Your task to perform on an android device: Open the calendar and show me this week's events Image 0: 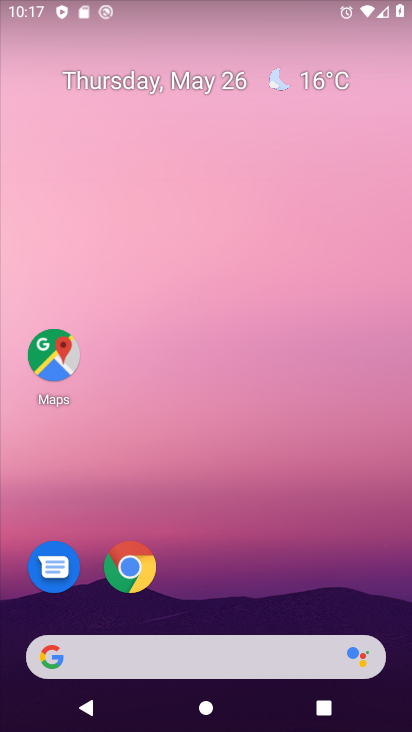
Step 0: click (340, 231)
Your task to perform on an android device: Open the calendar and show me this week's events Image 1: 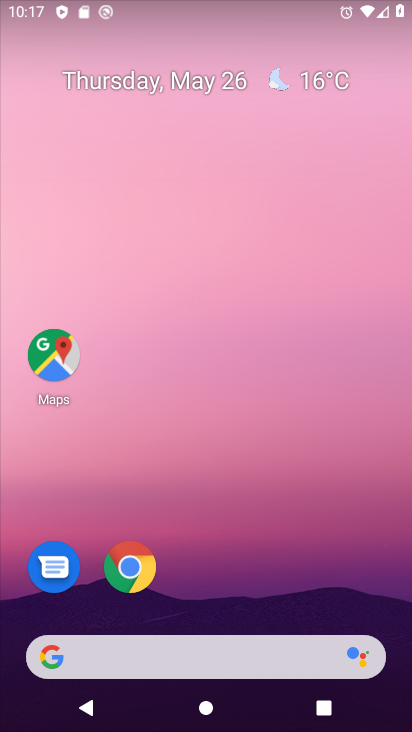
Step 1: drag from (392, 709) to (307, 92)
Your task to perform on an android device: Open the calendar and show me this week's events Image 2: 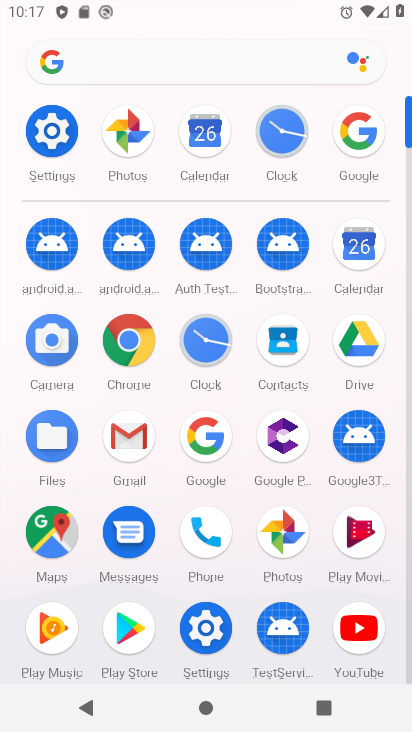
Step 2: click (343, 247)
Your task to perform on an android device: Open the calendar and show me this week's events Image 3: 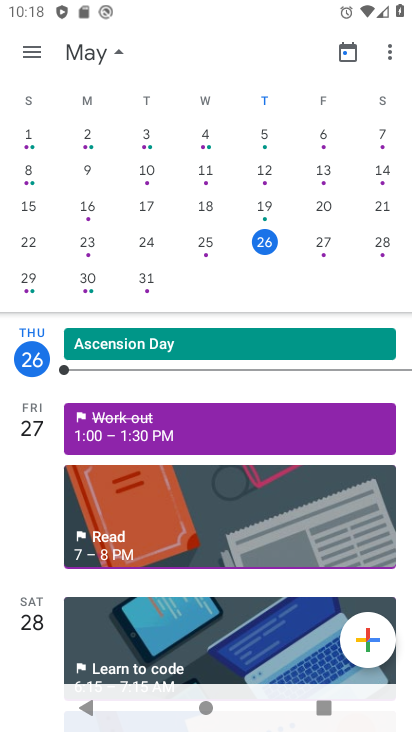
Step 3: click (34, 51)
Your task to perform on an android device: Open the calendar and show me this week's events Image 4: 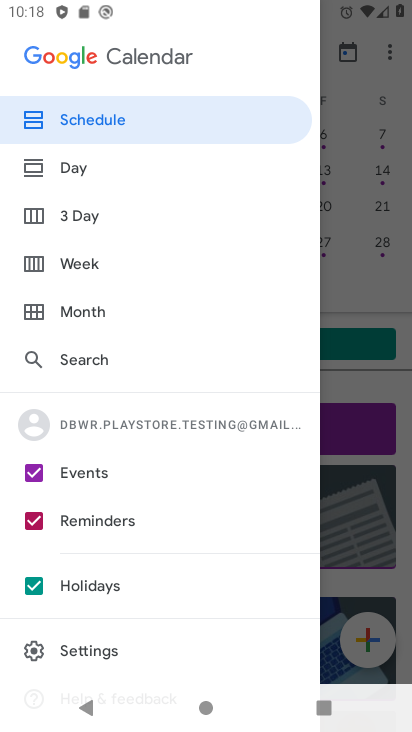
Step 4: press back button
Your task to perform on an android device: Open the calendar and show me this week's events Image 5: 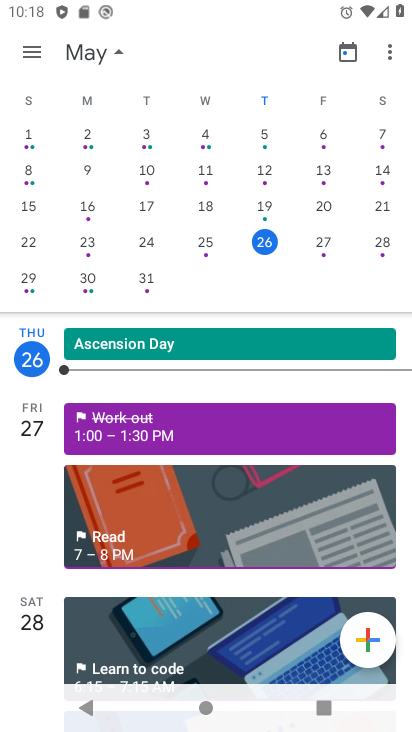
Step 5: click (268, 245)
Your task to perform on an android device: Open the calendar and show me this week's events Image 6: 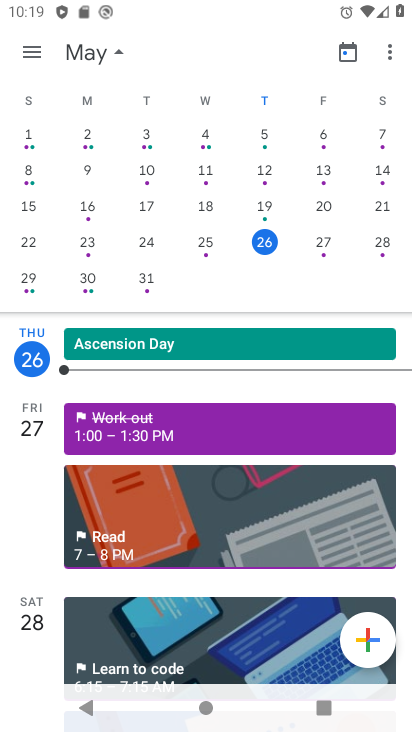
Step 6: click (27, 53)
Your task to perform on an android device: Open the calendar and show me this week's events Image 7: 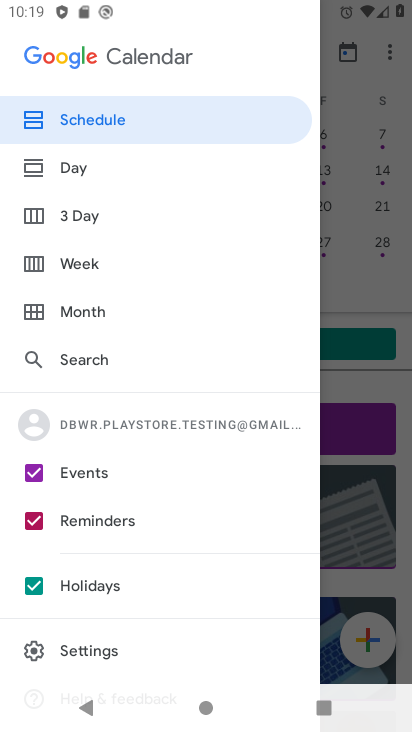
Step 7: click (30, 588)
Your task to perform on an android device: Open the calendar and show me this week's events Image 8: 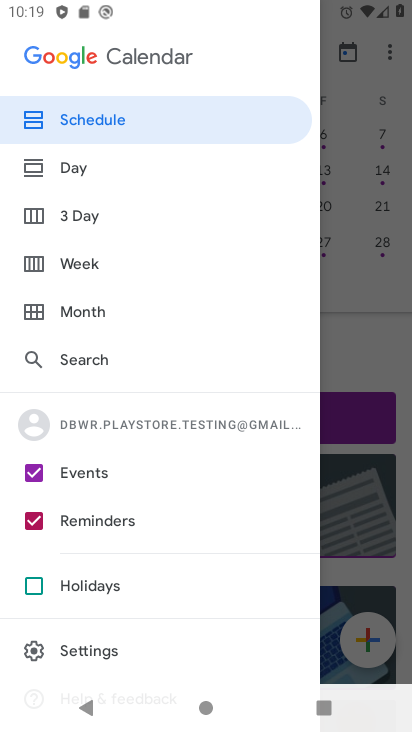
Step 8: click (40, 517)
Your task to perform on an android device: Open the calendar and show me this week's events Image 9: 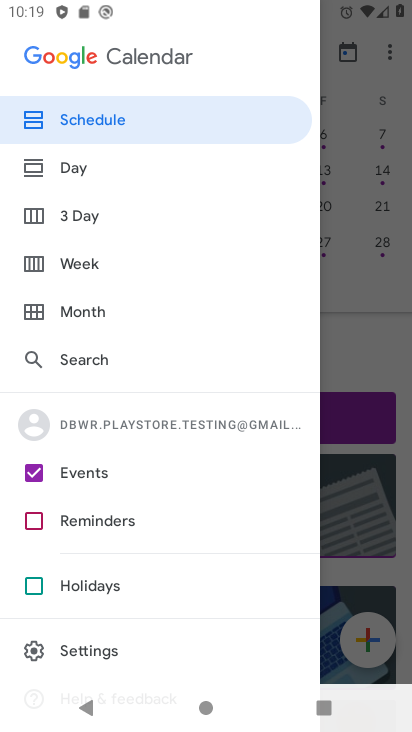
Step 9: drag from (175, 645) to (154, 355)
Your task to perform on an android device: Open the calendar and show me this week's events Image 10: 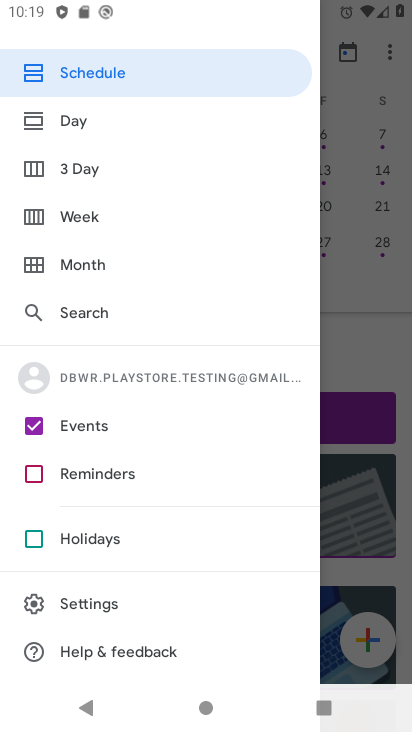
Step 10: click (86, 82)
Your task to perform on an android device: Open the calendar and show me this week's events Image 11: 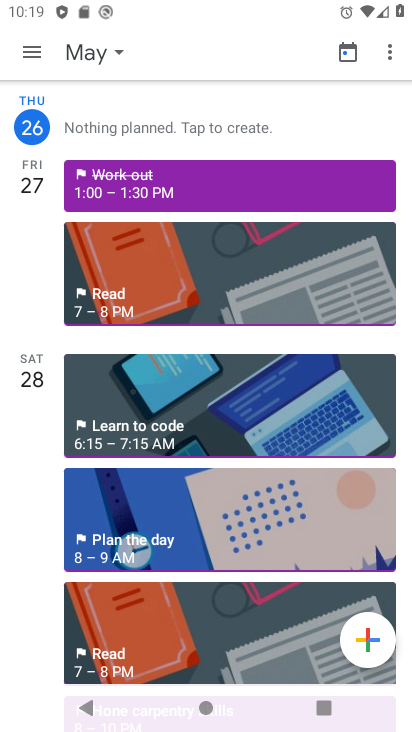
Step 11: task complete